Your task to perform on an android device: Go to battery settings Image 0: 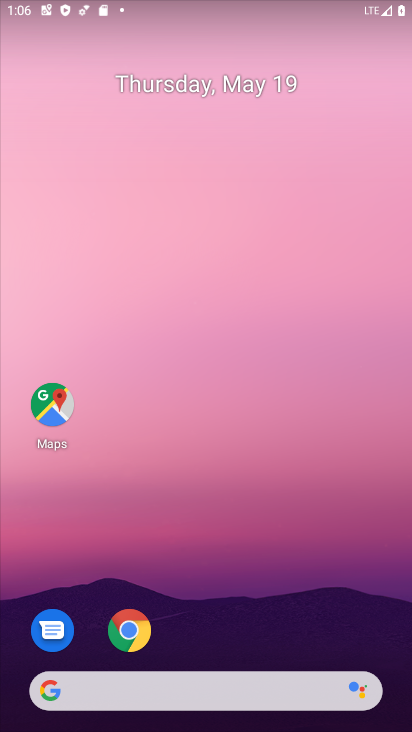
Step 0: drag from (204, 649) to (185, 66)
Your task to perform on an android device: Go to battery settings Image 1: 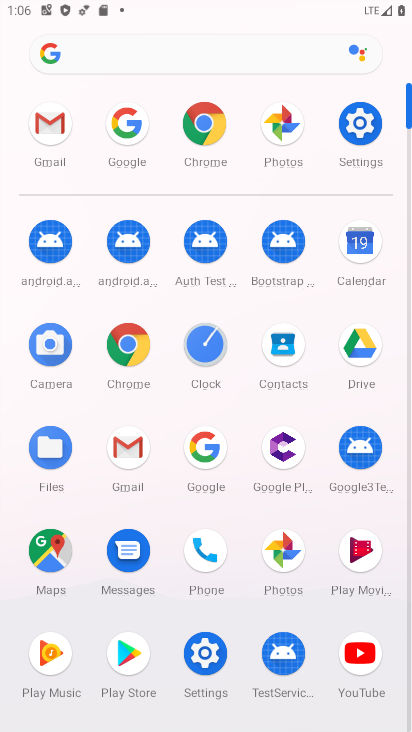
Step 1: click (353, 120)
Your task to perform on an android device: Go to battery settings Image 2: 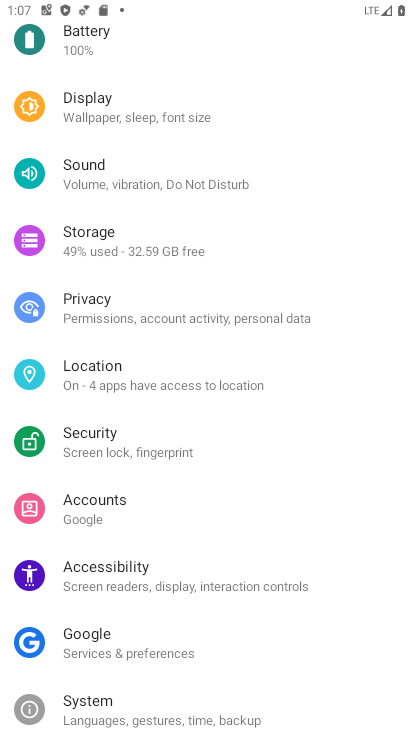
Step 2: drag from (230, 586) to (224, 427)
Your task to perform on an android device: Go to battery settings Image 3: 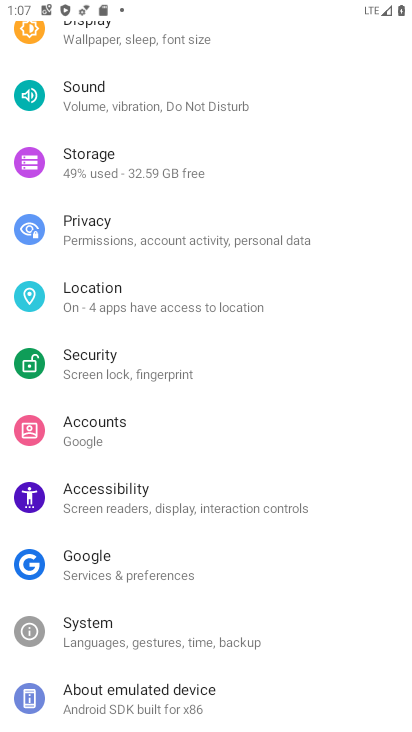
Step 3: drag from (99, 114) to (105, 586)
Your task to perform on an android device: Go to battery settings Image 4: 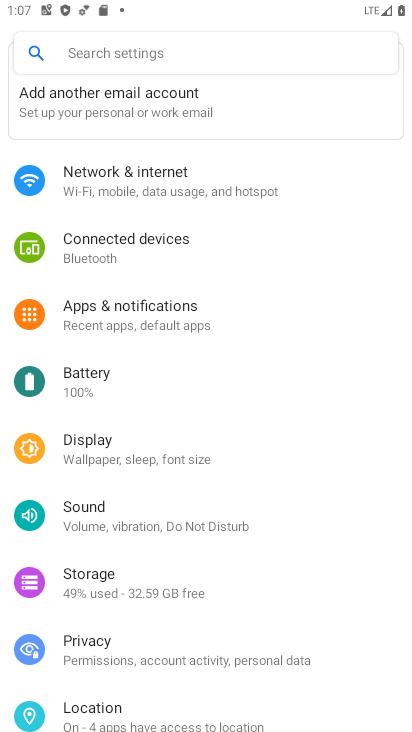
Step 4: click (95, 385)
Your task to perform on an android device: Go to battery settings Image 5: 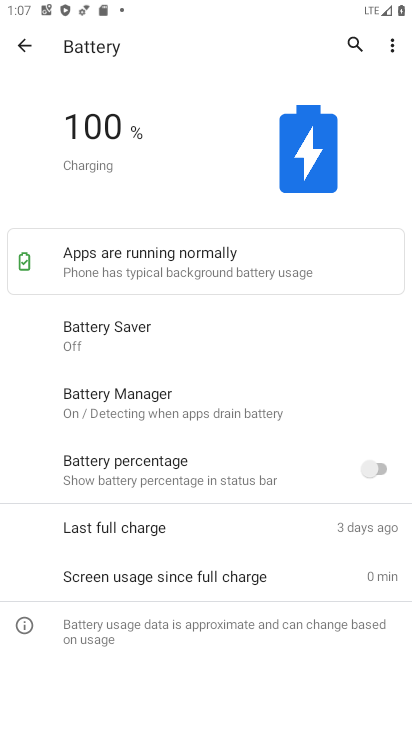
Step 5: task complete